Your task to perform on an android device: turn on the 24-hour format for clock Image 0: 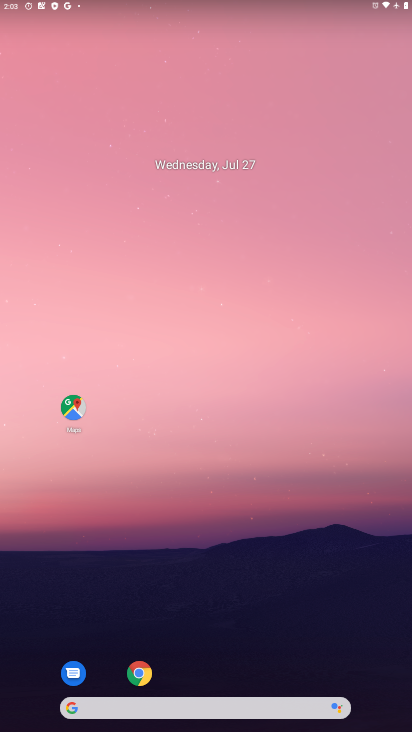
Step 0: drag from (241, 689) to (339, 8)
Your task to perform on an android device: turn on the 24-hour format for clock Image 1: 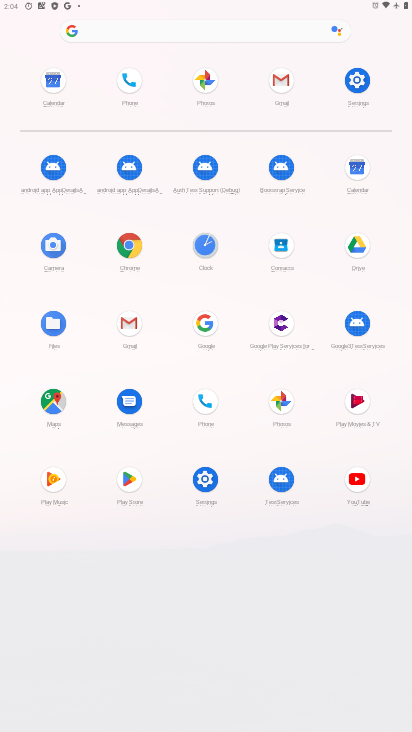
Step 1: click (204, 249)
Your task to perform on an android device: turn on the 24-hour format for clock Image 2: 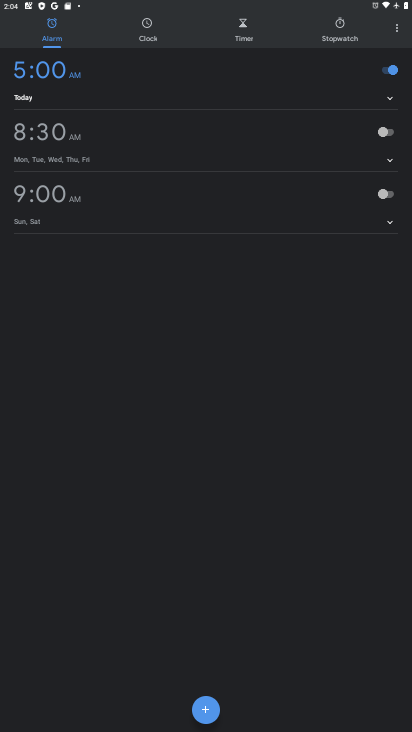
Step 2: click (398, 34)
Your task to perform on an android device: turn on the 24-hour format for clock Image 3: 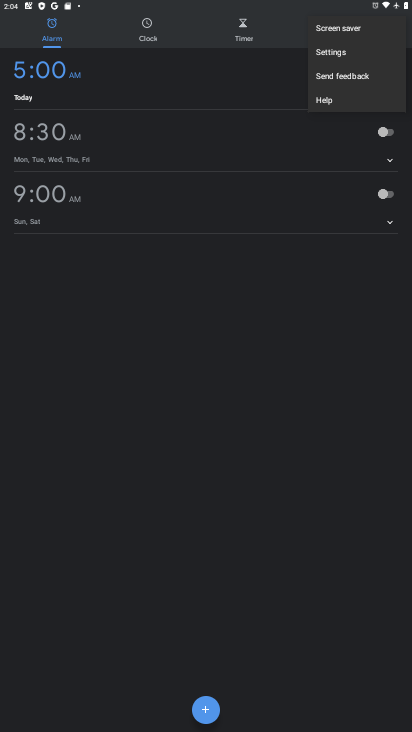
Step 3: click (326, 56)
Your task to perform on an android device: turn on the 24-hour format for clock Image 4: 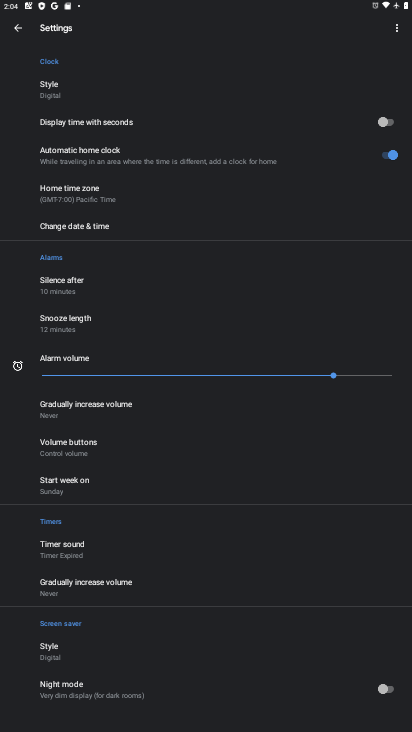
Step 4: click (90, 236)
Your task to perform on an android device: turn on the 24-hour format for clock Image 5: 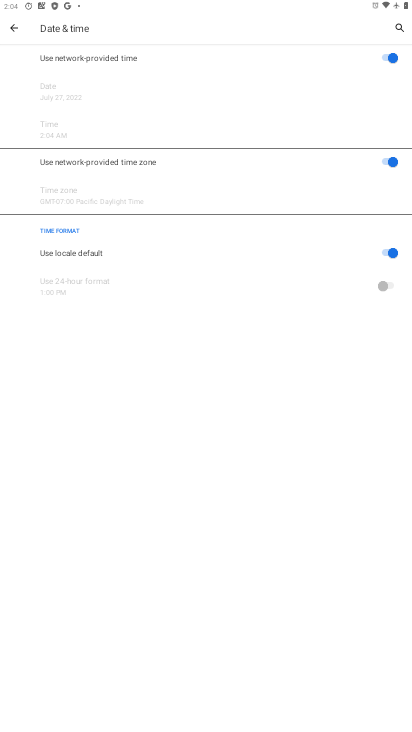
Step 5: click (392, 251)
Your task to perform on an android device: turn on the 24-hour format for clock Image 6: 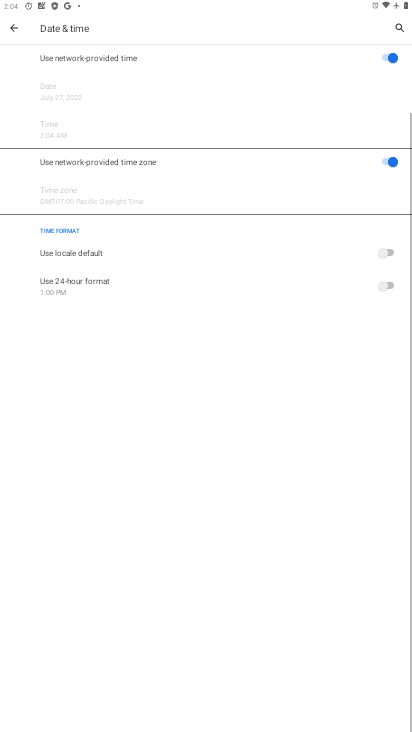
Step 6: click (383, 286)
Your task to perform on an android device: turn on the 24-hour format for clock Image 7: 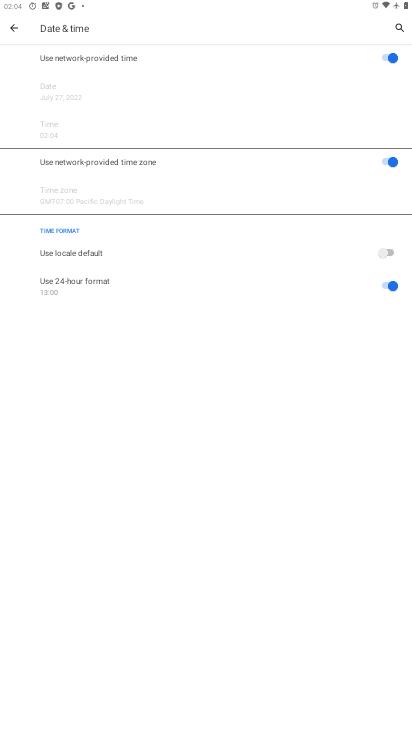
Step 7: task complete